Your task to perform on an android device: Go to Wikipedia Image 0: 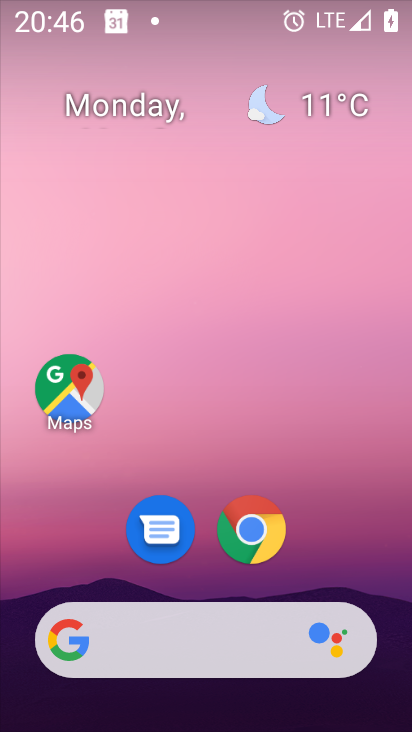
Step 0: drag from (227, 612) to (225, 104)
Your task to perform on an android device: Go to Wikipedia Image 1: 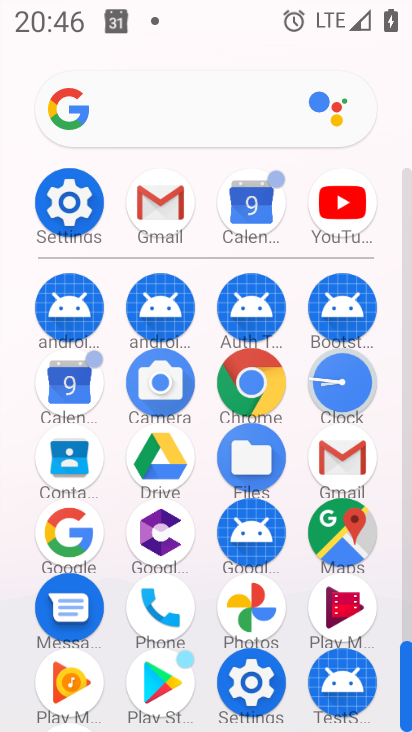
Step 1: click (259, 374)
Your task to perform on an android device: Go to Wikipedia Image 2: 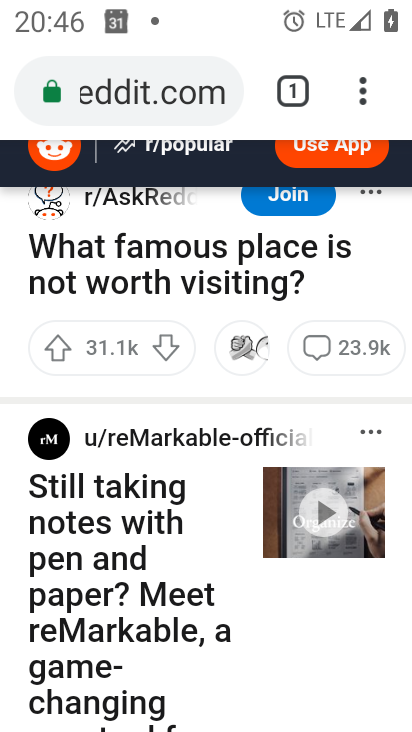
Step 2: click (172, 109)
Your task to perform on an android device: Go to Wikipedia Image 3: 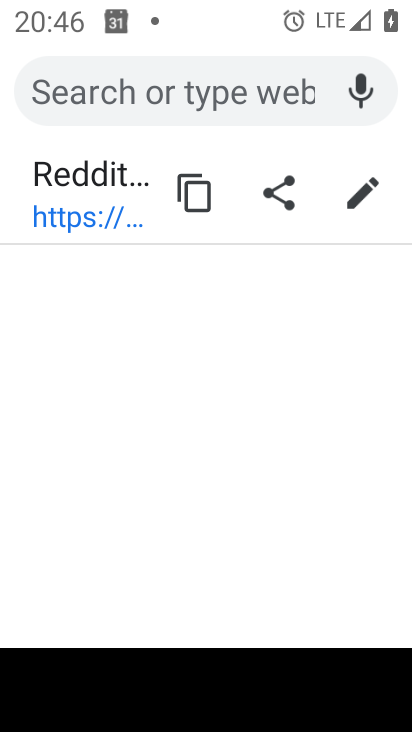
Step 3: type "wikipedia"
Your task to perform on an android device: Go to Wikipedia Image 4: 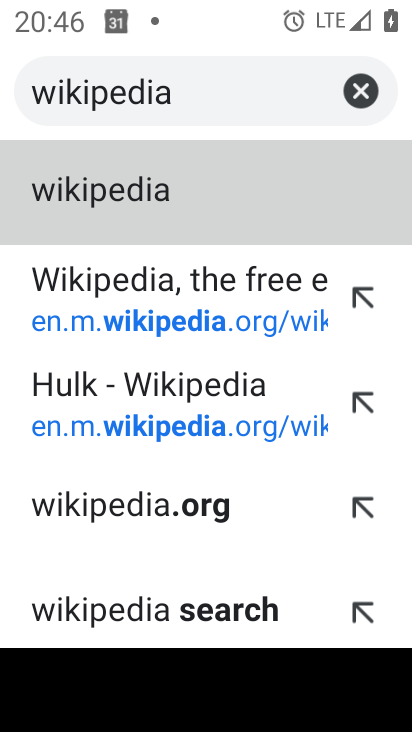
Step 4: click (211, 315)
Your task to perform on an android device: Go to Wikipedia Image 5: 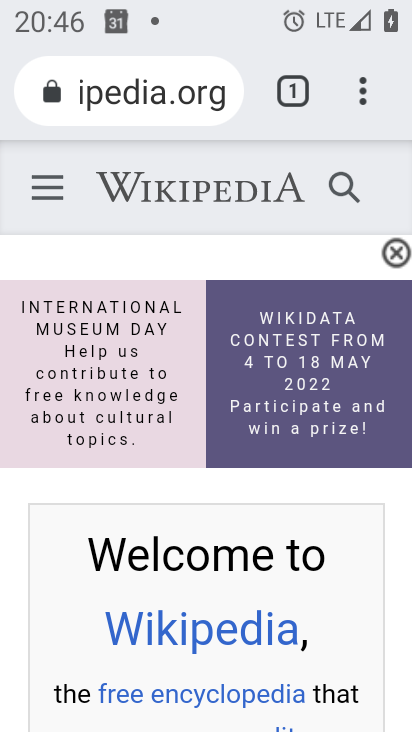
Step 5: task complete